Your task to perform on an android device: check storage Image 0: 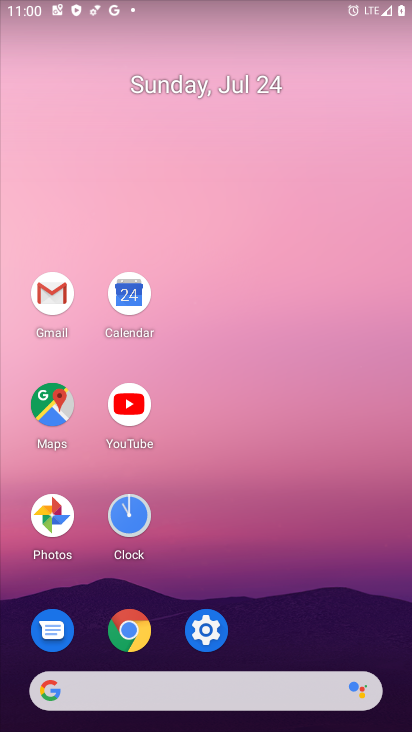
Step 0: click (208, 620)
Your task to perform on an android device: check storage Image 1: 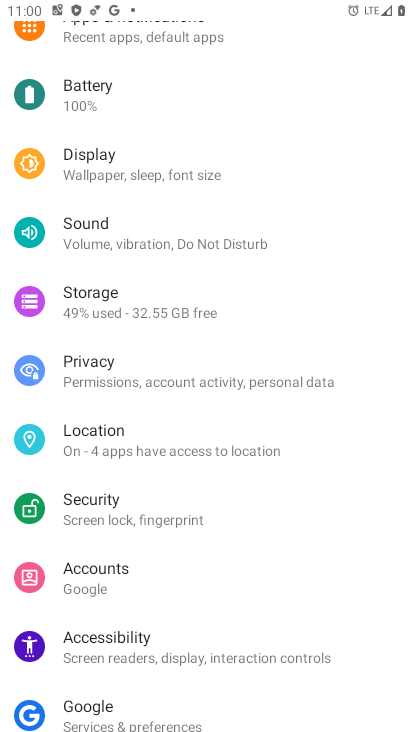
Step 1: click (96, 284)
Your task to perform on an android device: check storage Image 2: 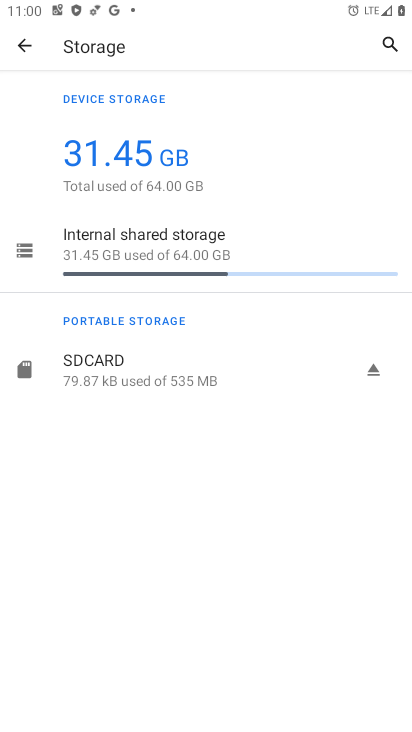
Step 2: task complete